Your task to perform on an android device: Toggle the flashlight Image 0: 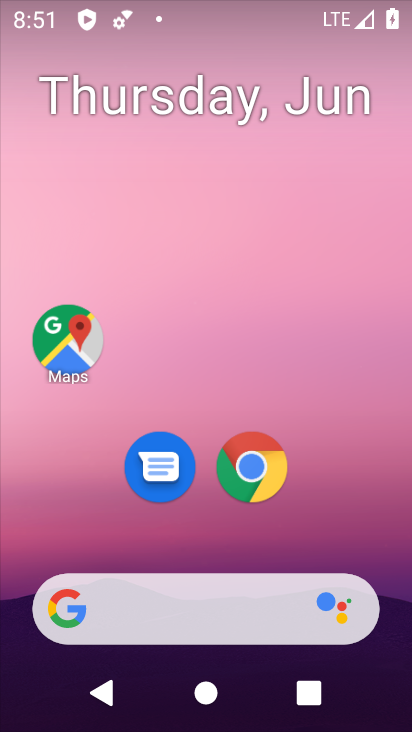
Step 0: drag from (298, 18) to (257, 606)
Your task to perform on an android device: Toggle the flashlight Image 1: 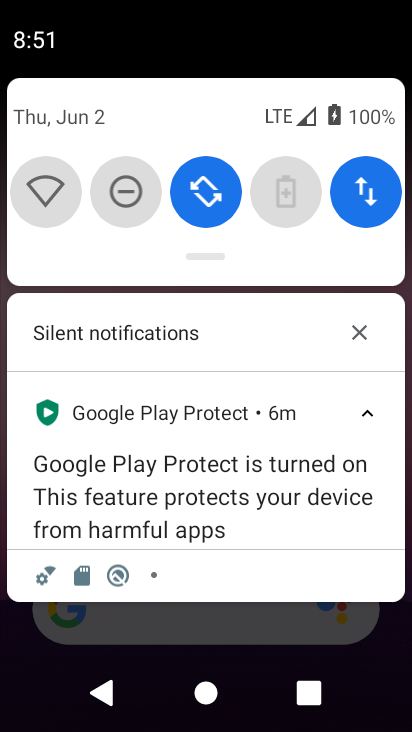
Step 1: task complete